Your task to perform on an android device: delete a single message in the gmail app Image 0: 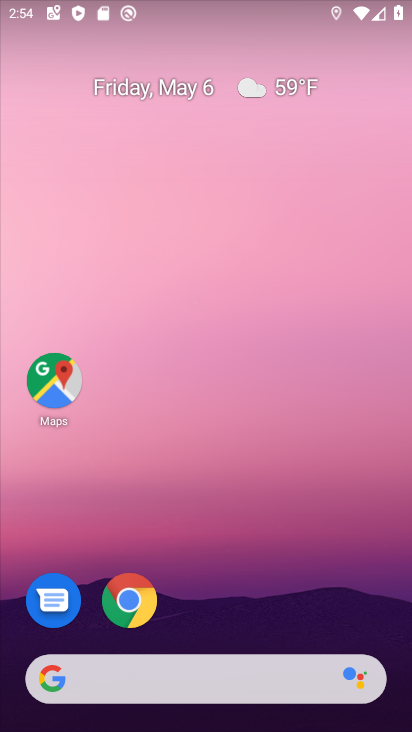
Step 0: drag from (215, 559) to (205, 1)
Your task to perform on an android device: delete a single message in the gmail app Image 1: 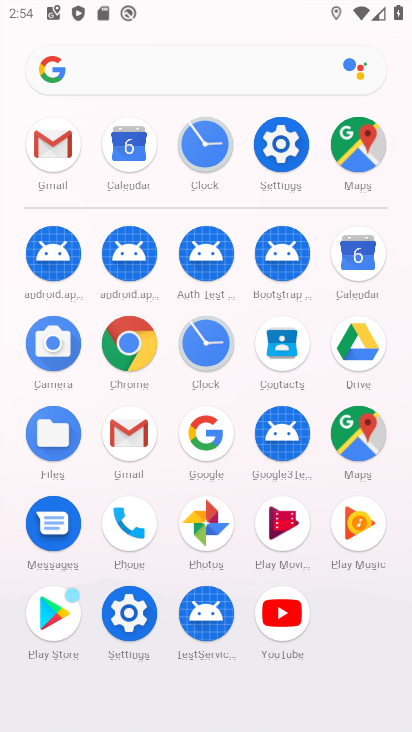
Step 1: click (129, 436)
Your task to perform on an android device: delete a single message in the gmail app Image 2: 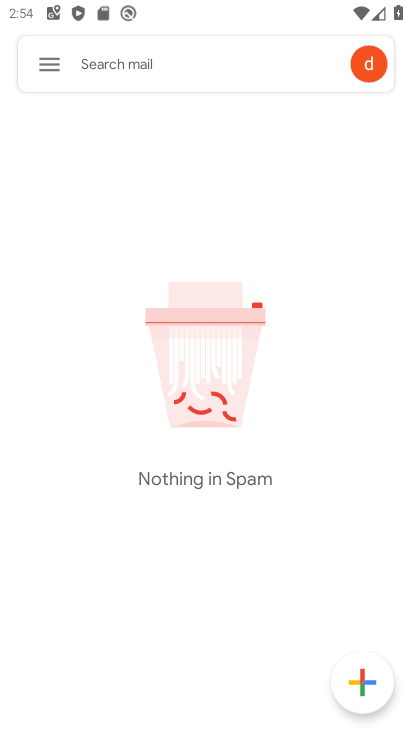
Step 2: click (43, 66)
Your task to perform on an android device: delete a single message in the gmail app Image 3: 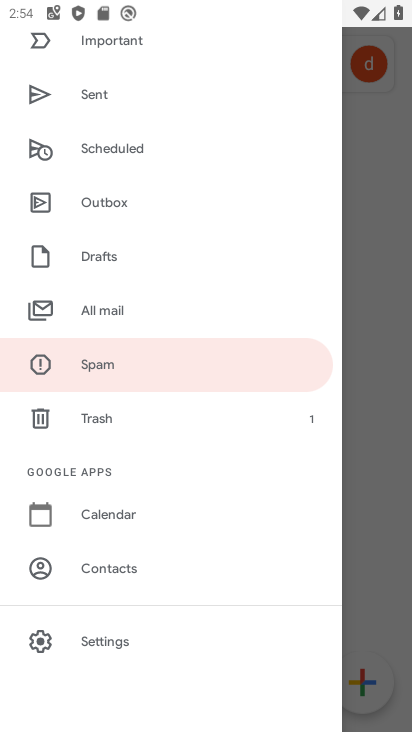
Step 3: click (126, 318)
Your task to perform on an android device: delete a single message in the gmail app Image 4: 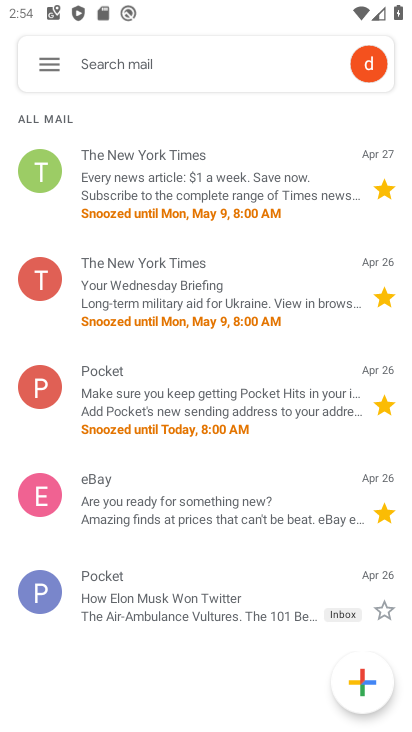
Step 4: click (189, 185)
Your task to perform on an android device: delete a single message in the gmail app Image 5: 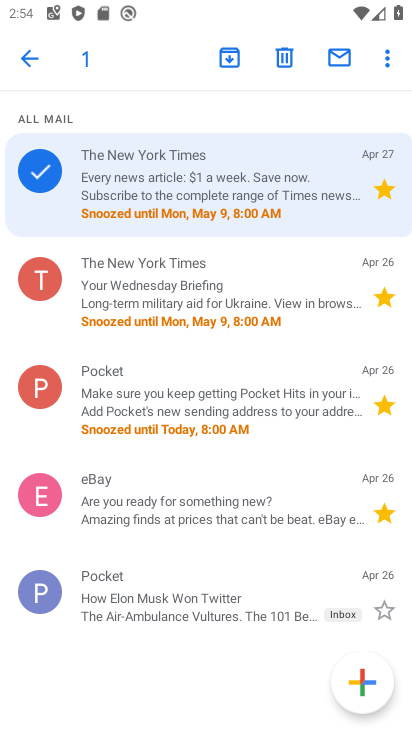
Step 5: click (284, 46)
Your task to perform on an android device: delete a single message in the gmail app Image 6: 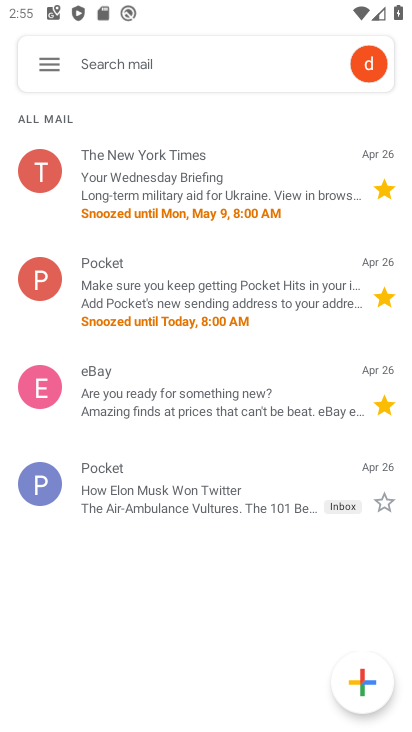
Step 6: task complete